Your task to perform on an android device: turn on notifications settings in the gmail app Image 0: 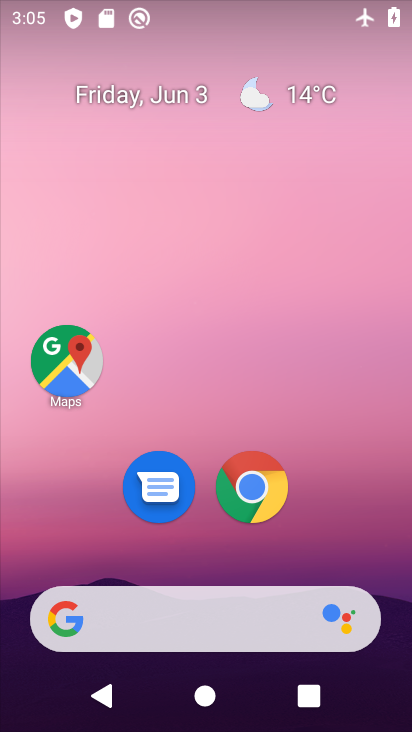
Step 0: drag from (207, 541) to (241, 63)
Your task to perform on an android device: turn on notifications settings in the gmail app Image 1: 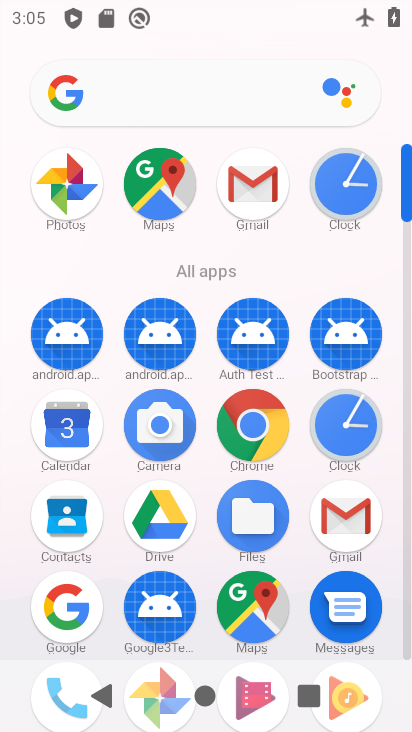
Step 1: click (243, 171)
Your task to perform on an android device: turn on notifications settings in the gmail app Image 2: 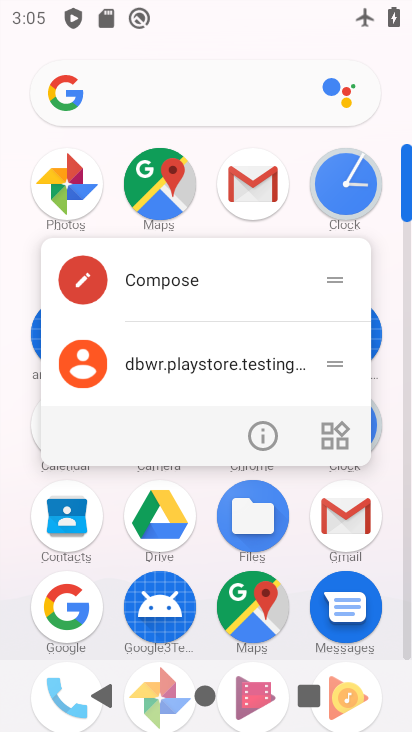
Step 2: click (269, 433)
Your task to perform on an android device: turn on notifications settings in the gmail app Image 3: 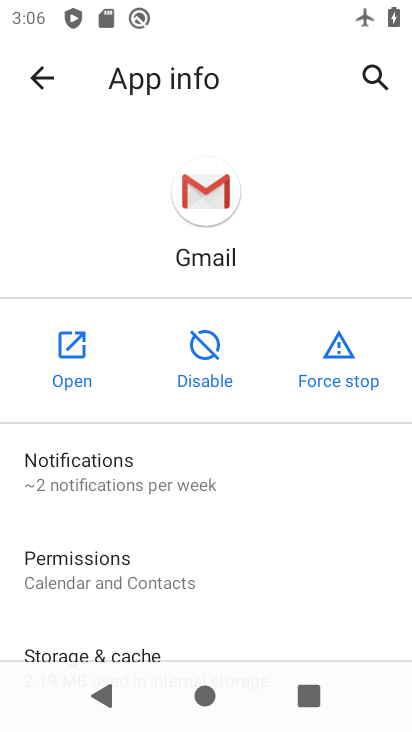
Step 3: click (107, 454)
Your task to perform on an android device: turn on notifications settings in the gmail app Image 4: 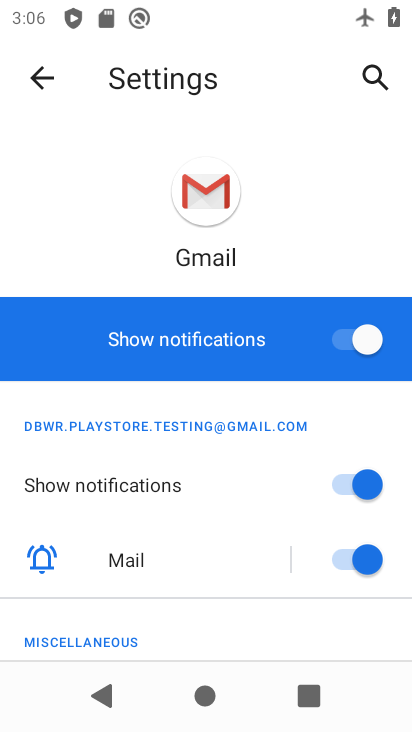
Step 4: task complete